Your task to perform on an android device: allow cookies in the chrome app Image 0: 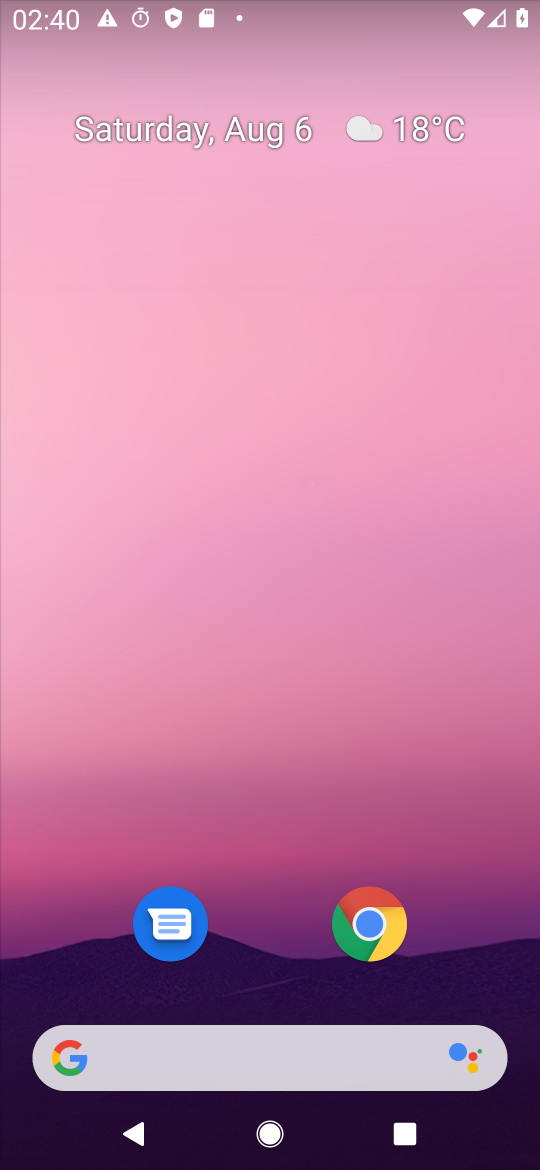
Step 0: drag from (250, 1039) to (229, 87)
Your task to perform on an android device: allow cookies in the chrome app Image 1: 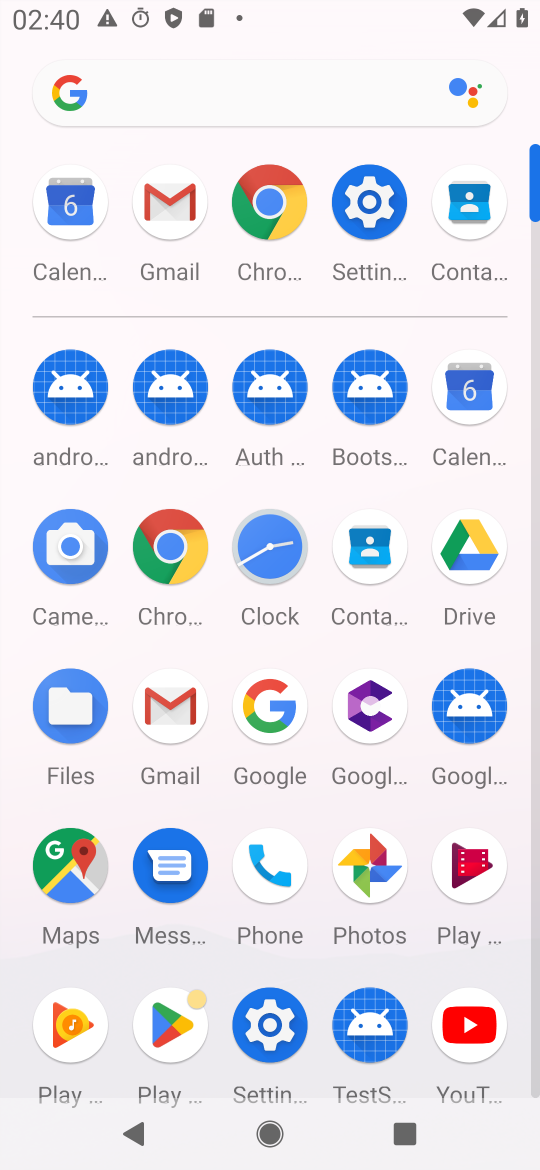
Step 1: click (172, 552)
Your task to perform on an android device: allow cookies in the chrome app Image 2: 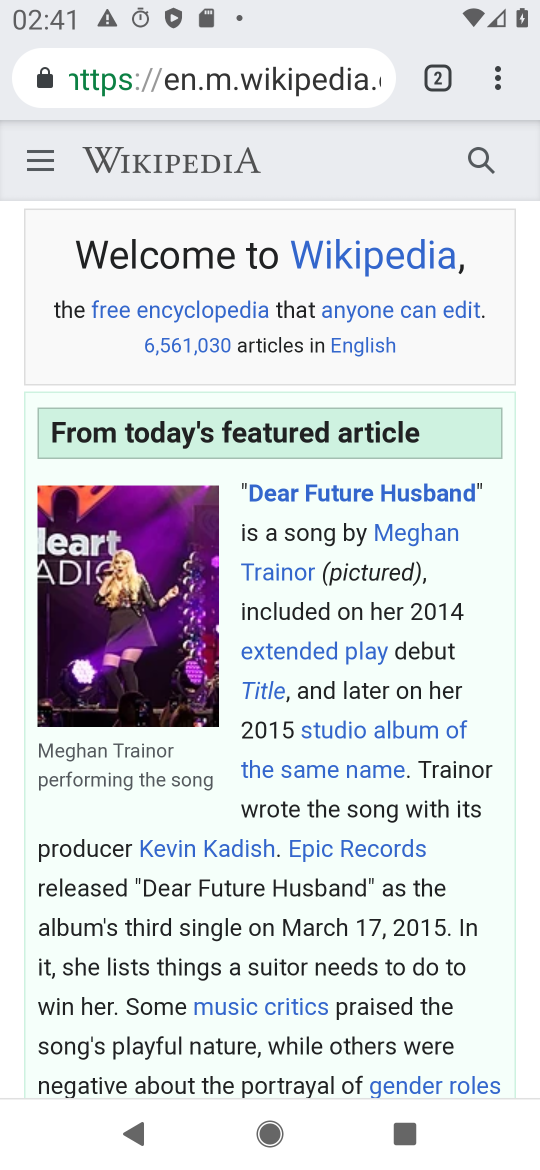
Step 2: click (491, 79)
Your task to perform on an android device: allow cookies in the chrome app Image 3: 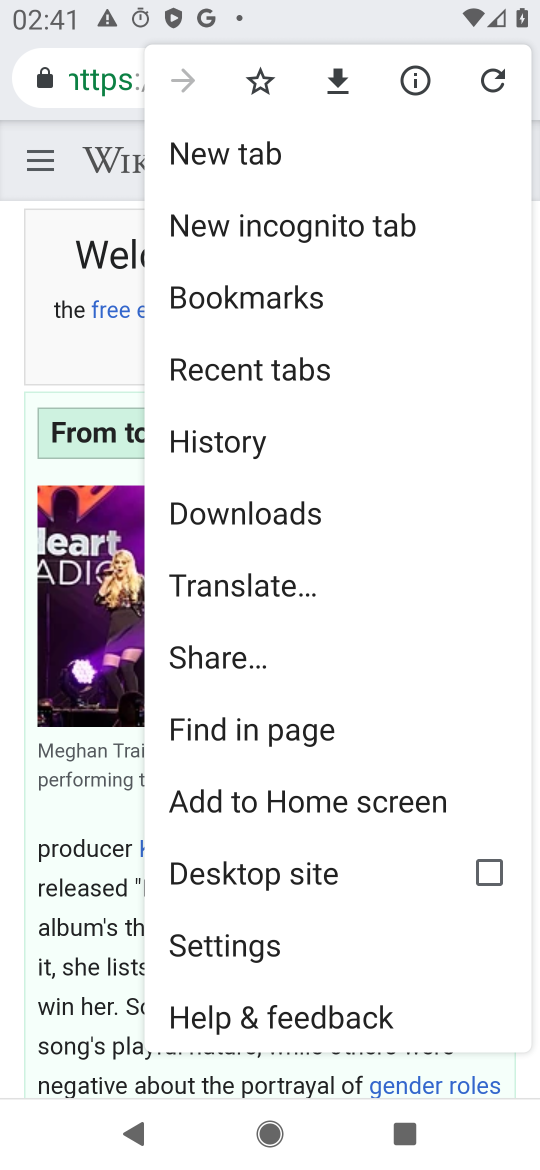
Step 3: click (278, 955)
Your task to perform on an android device: allow cookies in the chrome app Image 4: 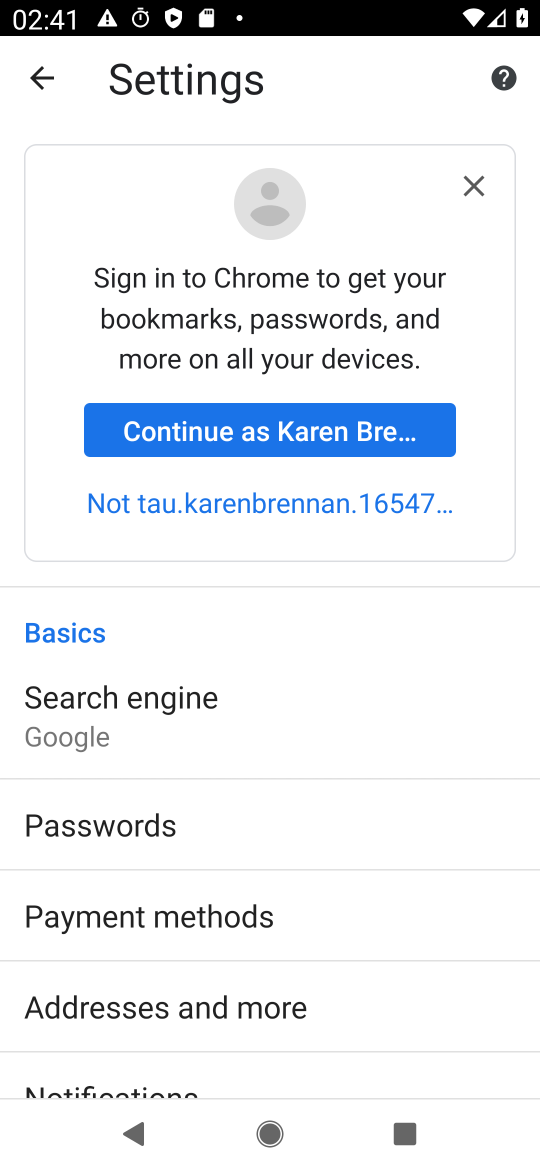
Step 4: drag from (425, 1058) to (402, 268)
Your task to perform on an android device: allow cookies in the chrome app Image 5: 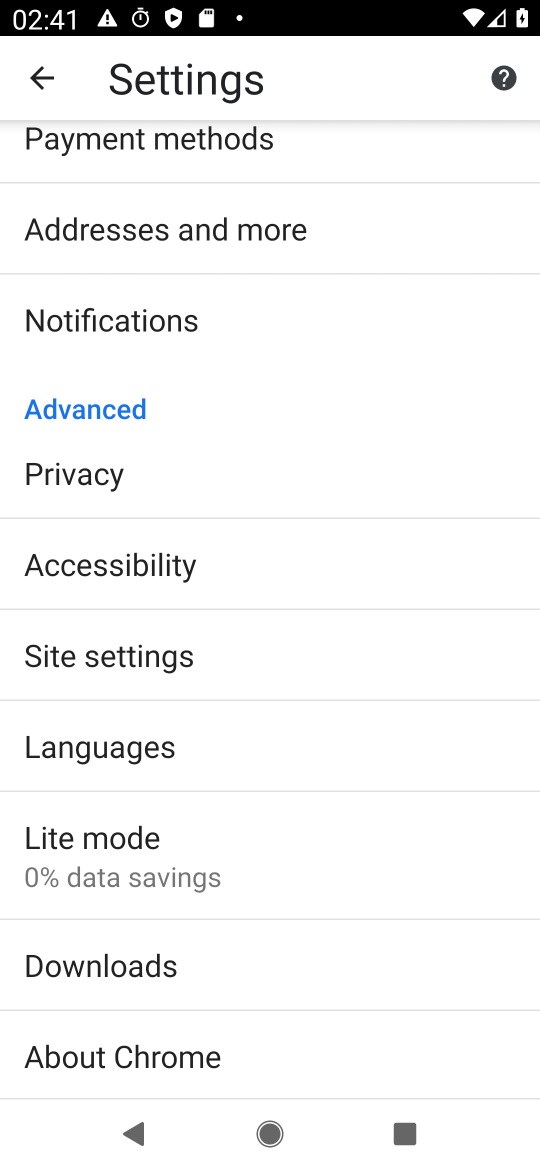
Step 5: click (77, 653)
Your task to perform on an android device: allow cookies in the chrome app Image 6: 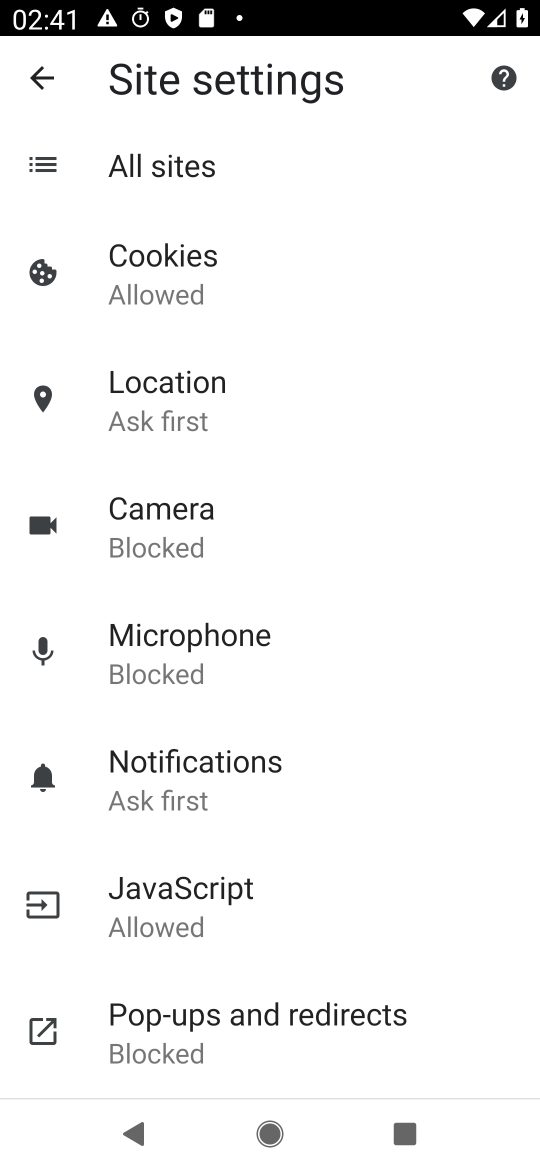
Step 6: click (176, 279)
Your task to perform on an android device: allow cookies in the chrome app Image 7: 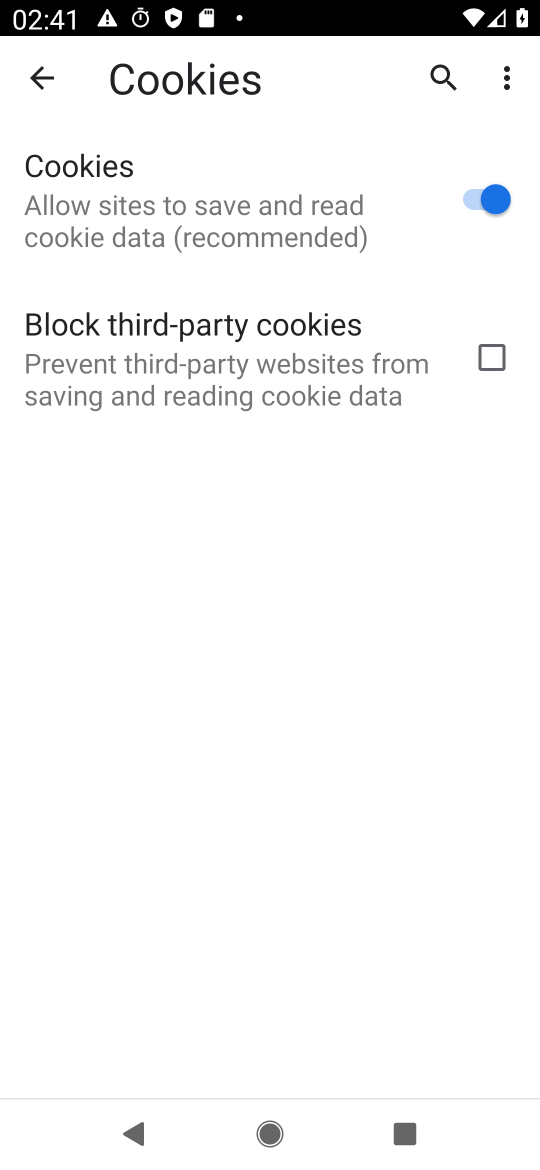
Step 7: task complete